Your task to perform on an android device: toggle pop-ups in chrome Image 0: 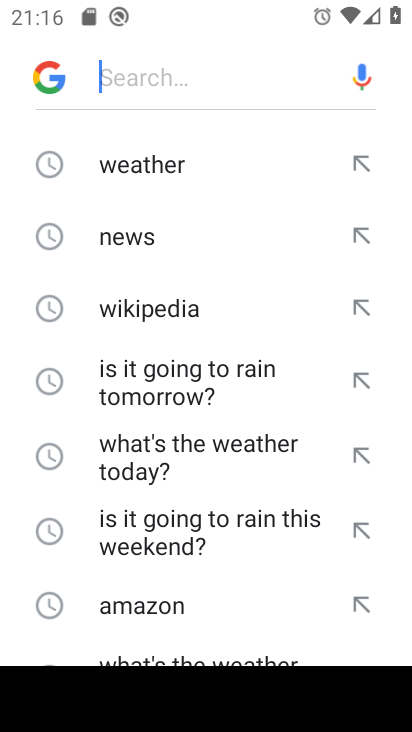
Step 0: press home button
Your task to perform on an android device: toggle pop-ups in chrome Image 1: 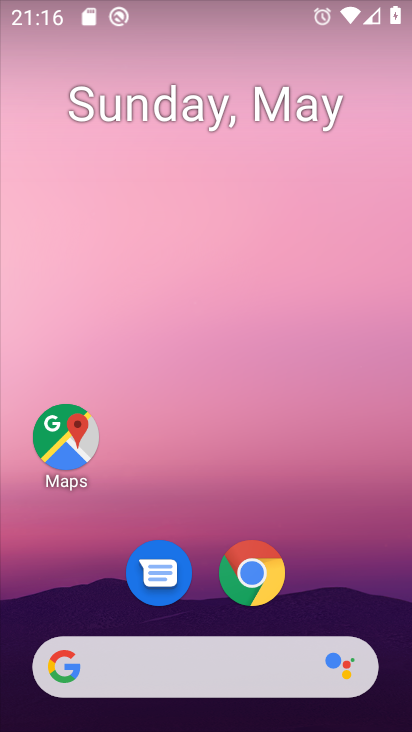
Step 1: click (262, 572)
Your task to perform on an android device: toggle pop-ups in chrome Image 2: 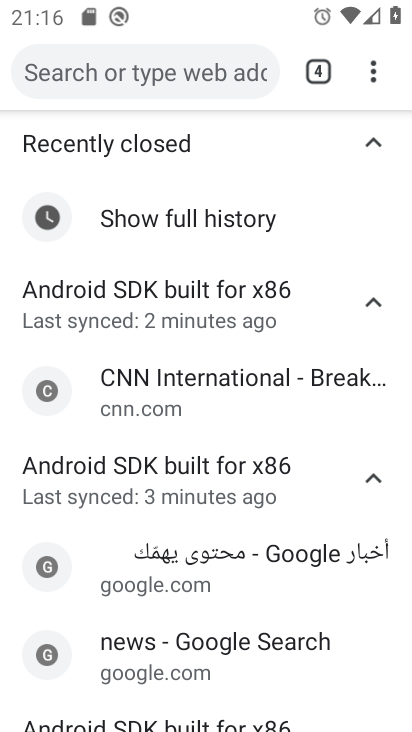
Step 2: click (367, 76)
Your task to perform on an android device: toggle pop-ups in chrome Image 3: 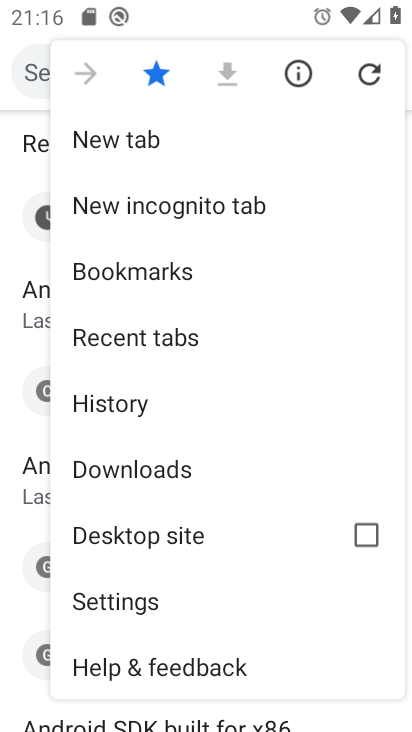
Step 3: click (193, 600)
Your task to perform on an android device: toggle pop-ups in chrome Image 4: 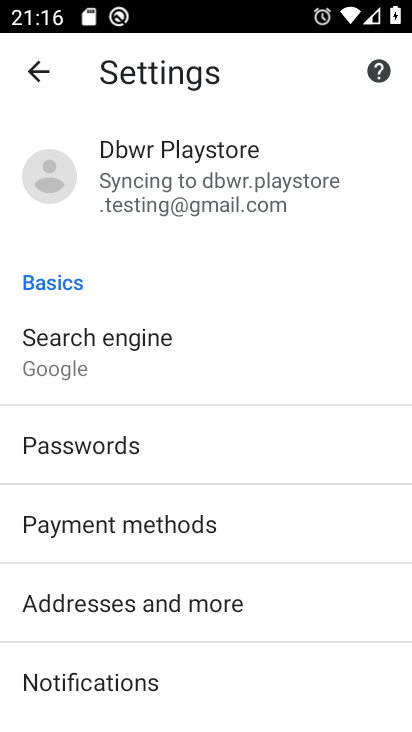
Step 4: drag from (215, 571) to (270, 98)
Your task to perform on an android device: toggle pop-ups in chrome Image 5: 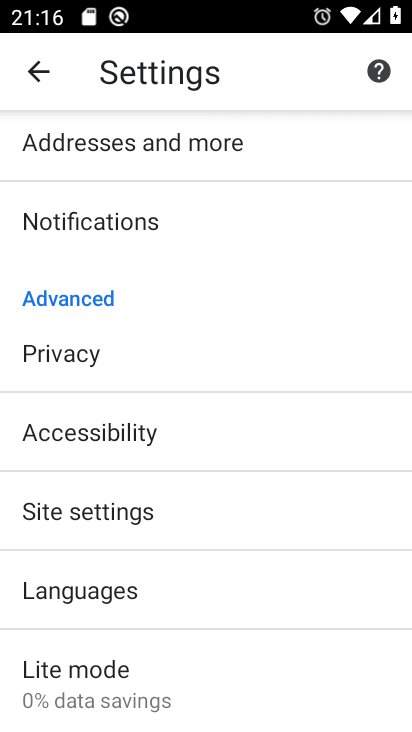
Step 5: click (190, 524)
Your task to perform on an android device: toggle pop-ups in chrome Image 6: 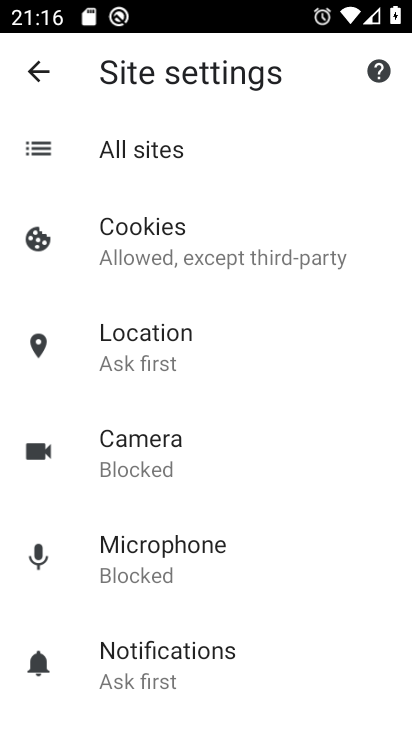
Step 6: drag from (249, 590) to (265, 255)
Your task to perform on an android device: toggle pop-ups in chrome Image 7: 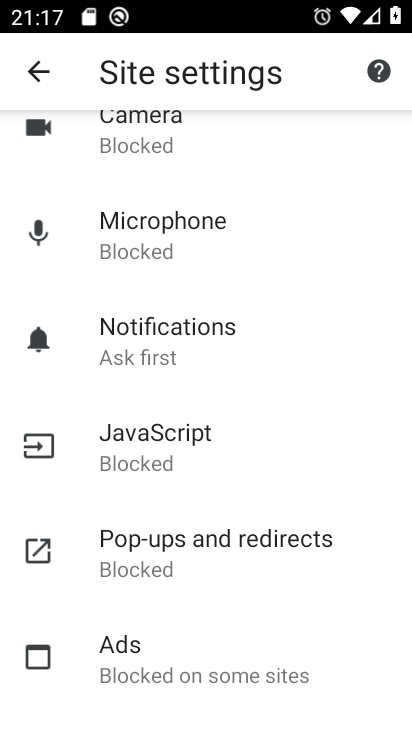
Step 7: click (232, 553)
Your task to perform on an android device: toggle pop-ups in chrome Image 8: 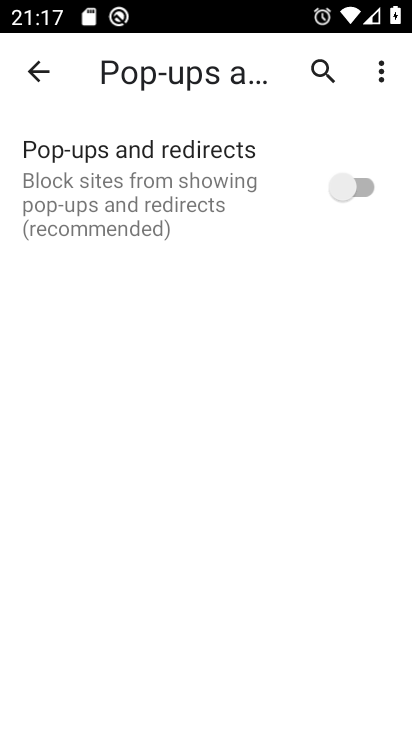
Step 8: click (359, 180)
Your task to perform on an android device: toggle pop-ups in chrome Image 9: 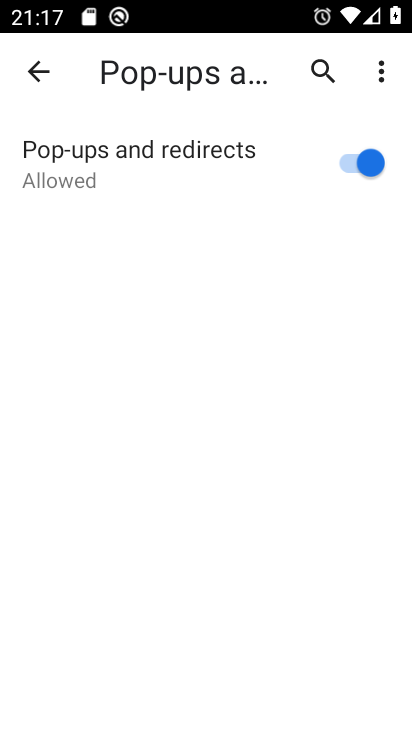
Step 9: task complete